Your task to perform on an android device: see tabs open on other devices in the chrome app Image 0: 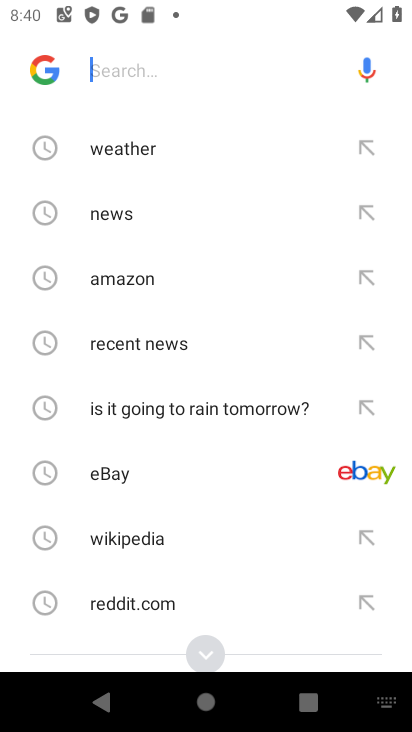
Step 0: press home button
Your task to perform on an android device: see tabs open on other devices in the chrome app Image 1: 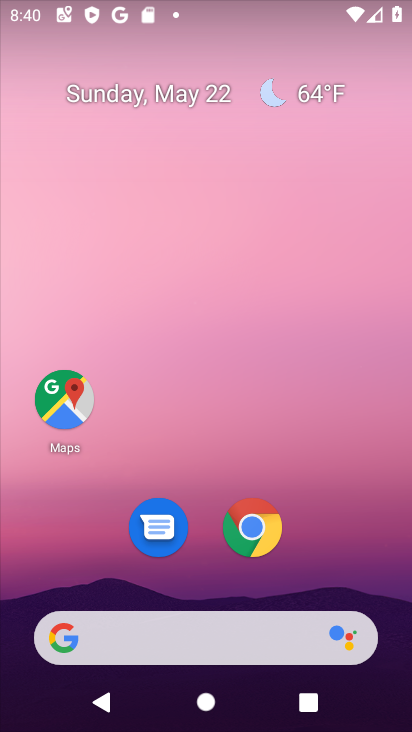
Step 1: click (252, 535)
Your task to perform on an android device: see tabs open on other devices in the chrome app Image 2: 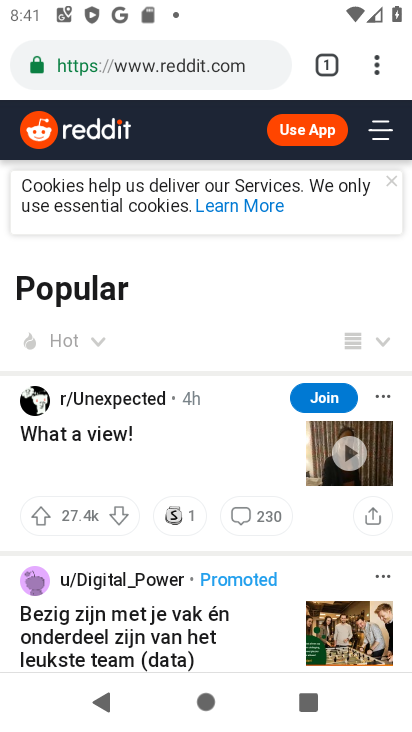
Step 2: click (378, 63)
Your task to perform on an android device: see tabs open on other devices in the chrome app Image 3: 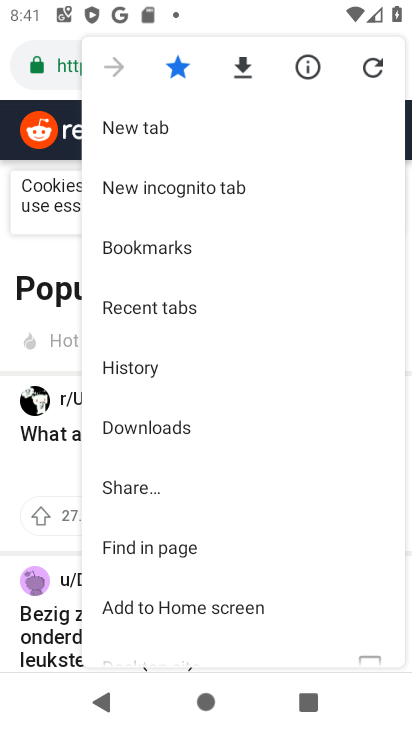
Step 3: click (199, 309)
Your task to perform on an android device: see tabs open on other devices in the chrome app Image 4: 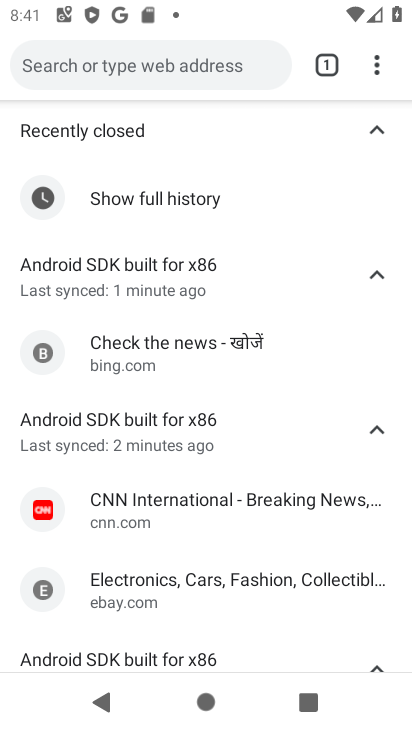
Step 4: task complete